Your task to perform on an android device: Go to Wikipedia Image 0: 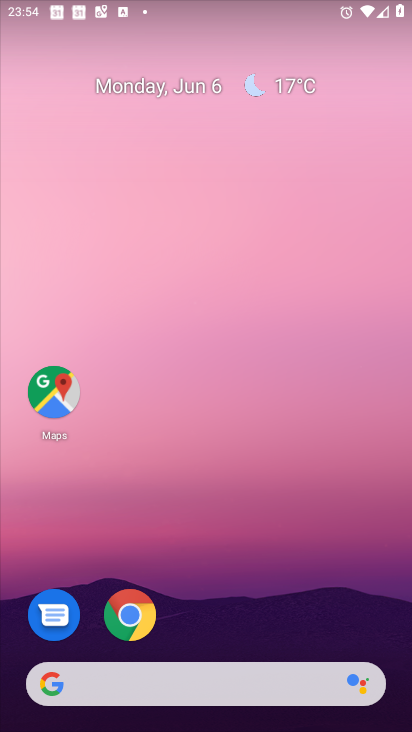
Step 0: click (132, 614)
Your task to perform on an android device: Go to Wikipedia Image 1: 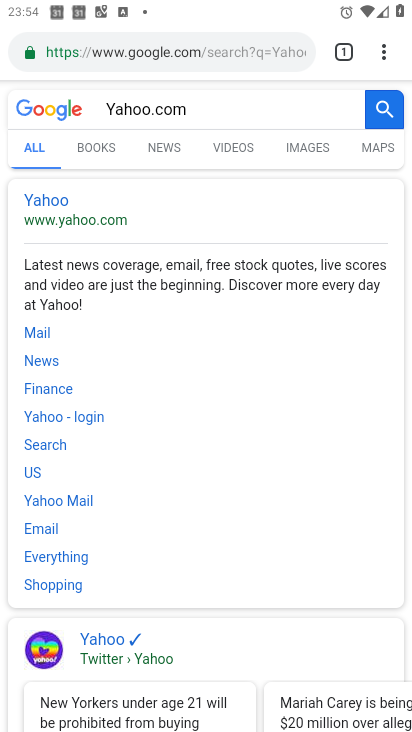
Step 1: click (293, 35)
Your task to perform on an android device: Go to Wikipedia Image 2: 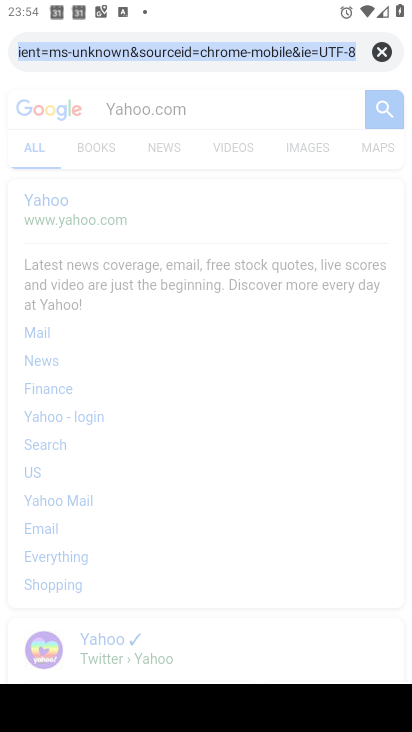
Step 2: click (373, 45)
Your task to perform on an android device: Go to Wikipedia Image 3: 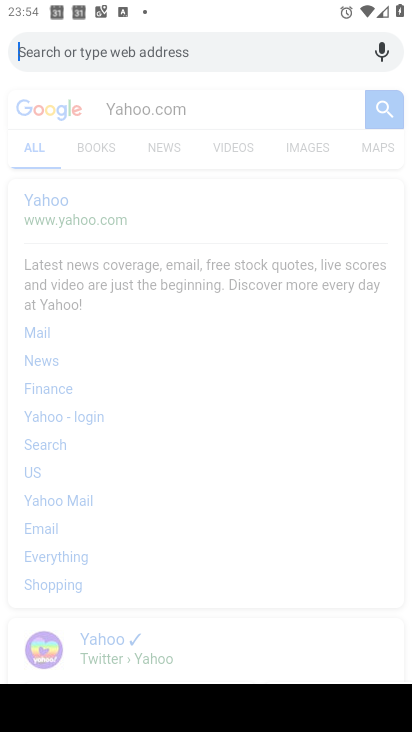
Step 3: type "Wikipedia"
Your task to perform on an android device: Go to Wikipedia Image 4: 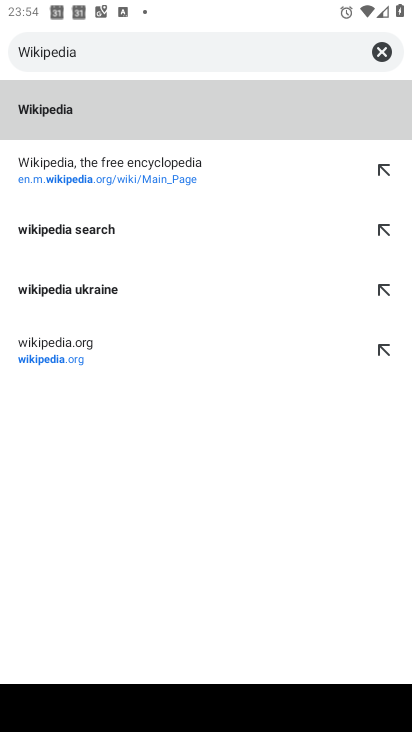
Step 4: click (70, 234)
Your task to perform on an android device: Go to Wikipedia Image 5: 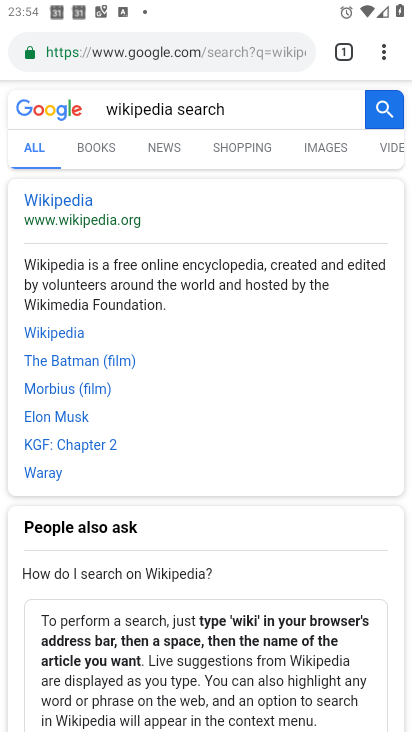
Step 5: task complete